Your task to perform on an android device: Go to location settings Image 0: 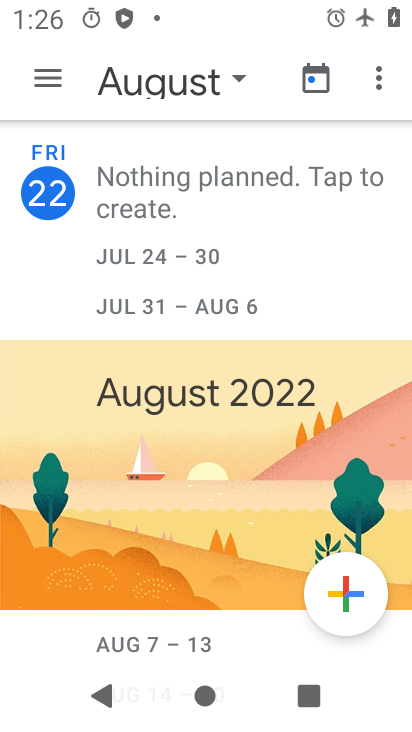
Step 0: press home button
Your task to perform on an android device: Go to location settings Image 1: 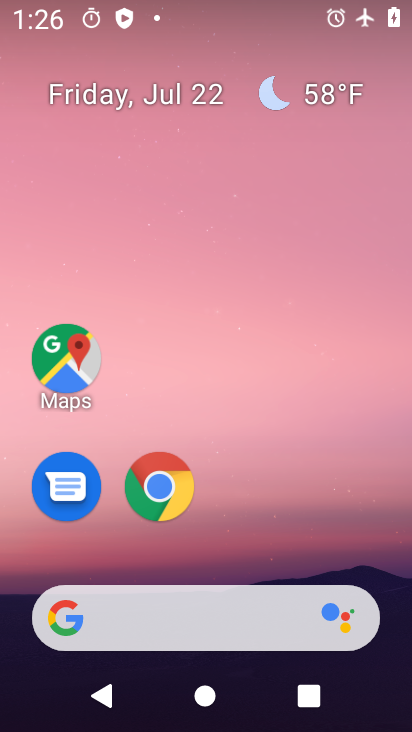
Step 1: drag from (367, 515) to (378, 49)
Your task to perform on an android device: Go to location settings Image 2: 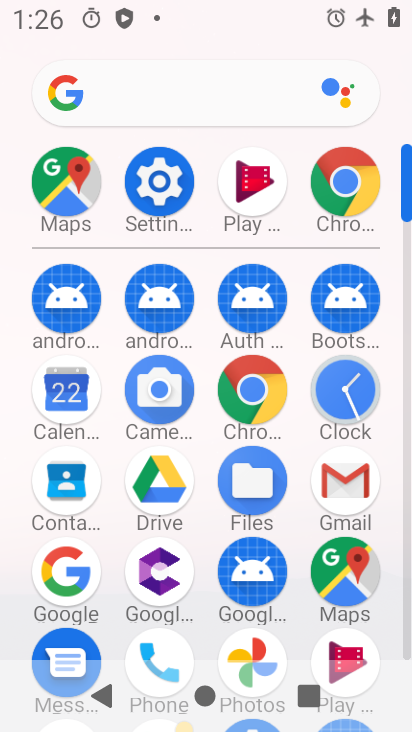
Step 2: click (145, 189)
Your task to perform on an android device: Go to location settings Image 3: 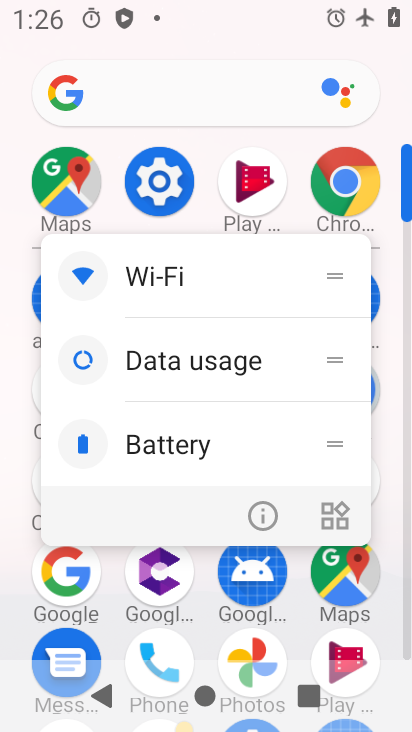
Step 3: click (145, 189)
Your task to perform on an android device: Go to location settings Image 4: 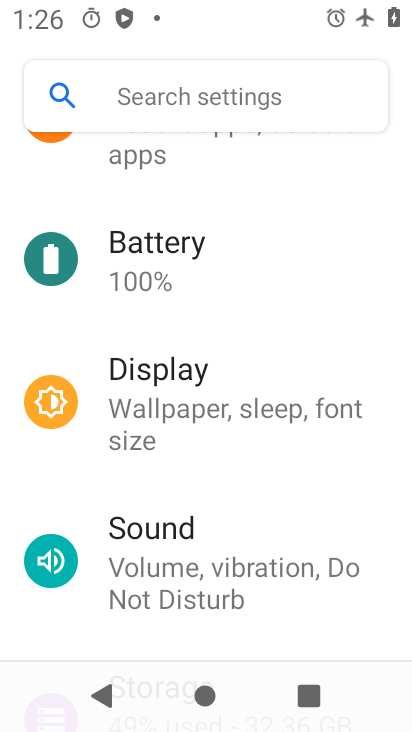
Step 4: drag from (332, 325) to (335, 238)
Your task to perform on an android device: Go to location settings Image 5: 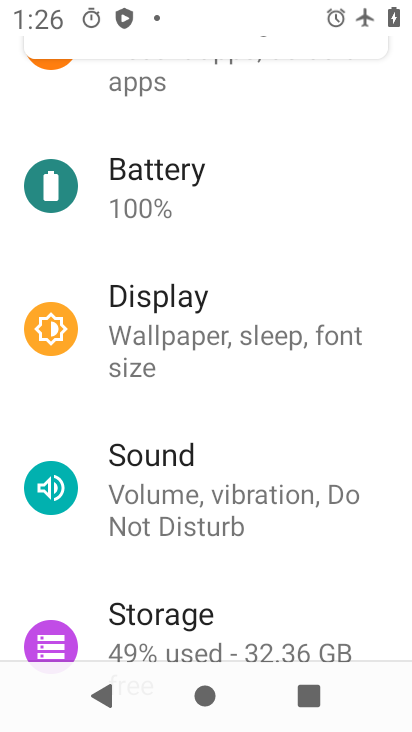
Step 5: drag from (349, 345) to (357, 273)
Your task to perform on an android device: Go to location settings Image 6: 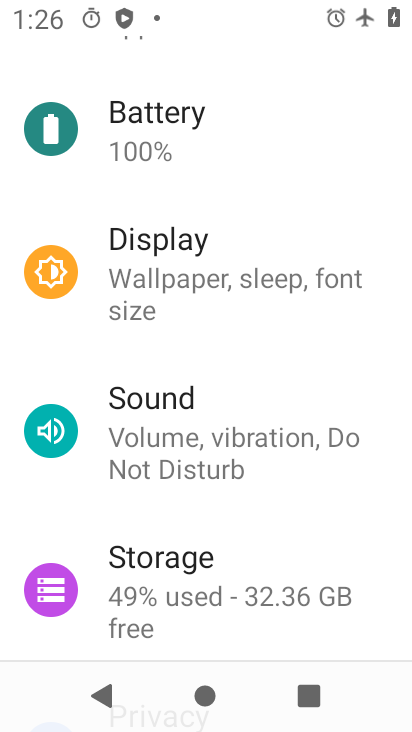
Step 6: drag from (363, 353) to (366, 283)
Your task to perform on an android device: Go to location settings Image 7: 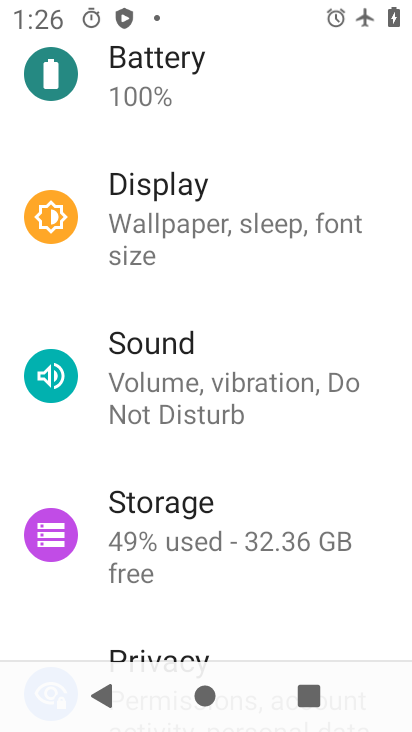
Step 7: drag from (372, 361) to (373, 275)
Your task to perform on an android device: Go to location settings Image 8: 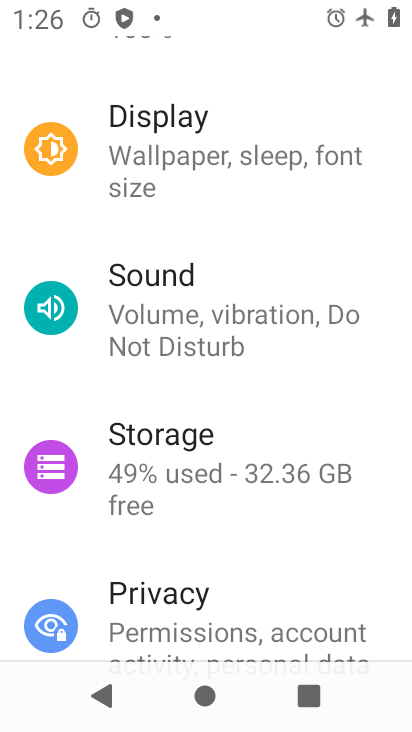
Step 8: drag from (380, 343) to (380, 259)
Your task to perform on an android device: Go to location settings Image 9: 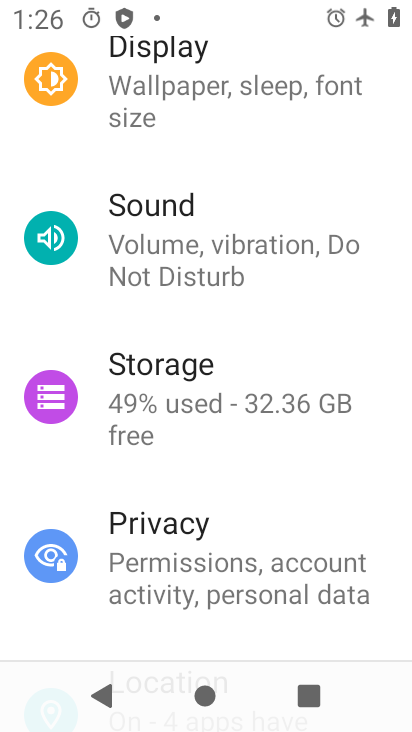
Step 9: drag from (370, 336) to (370, 271)
Your task to perform on an android device: Go to location settings Image 10: 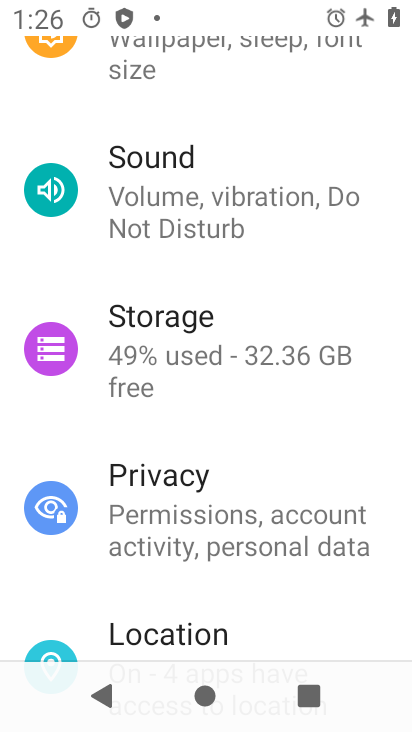
Step 10: drag from (362, 361) to (362, 287)
Your task to perform on an android device: Go to location settings Image 11: 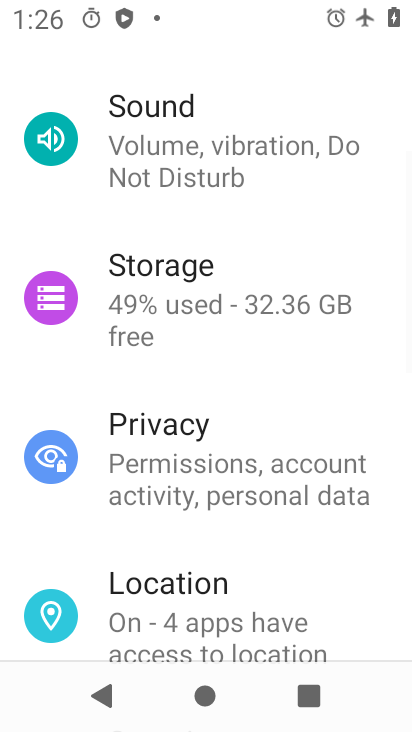
Step 11: drag from (363, 352) to (362, 287)
Your task to perform on an android device: Go to location settings Image 12: 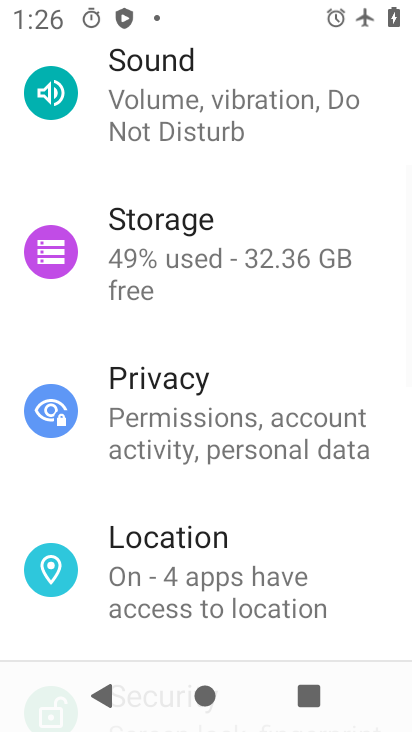
Step 12: drag from (360, 352) to (360, 271)
Your task to perform on an android device: Go to location settings Image 13: 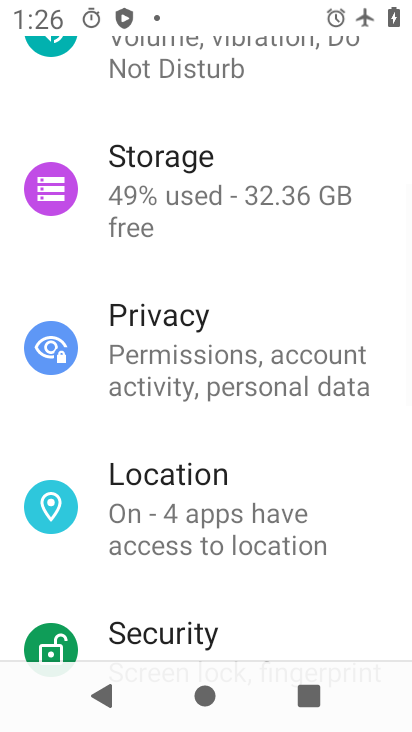
Step 13: drag from (366, 347) to (367, 264)
Your task to perform on an android device: Go to location settings Image 14: 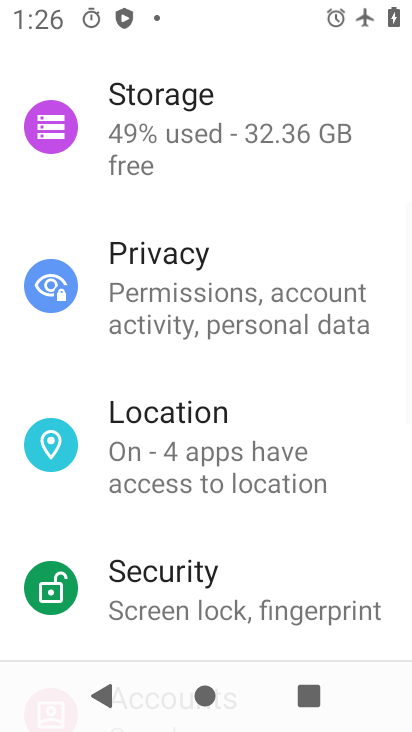
Step 14: drag from (371, 369) to (372, 291)
Your task to perform on an android device: Go to location settings Image 15: 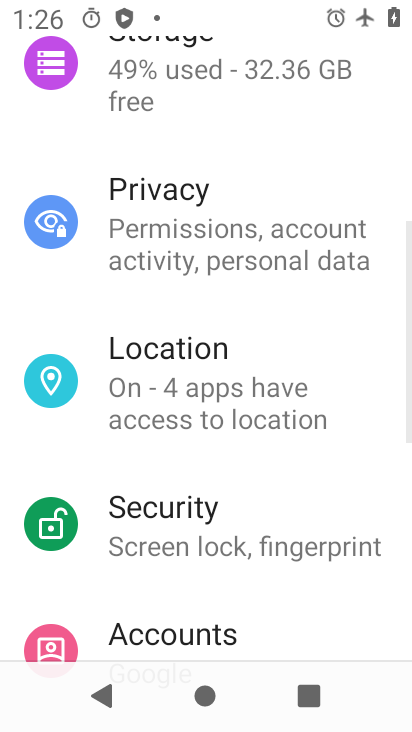
Step 15: drag from (372, 366) to (368, 275)
Your task to perform on an android device: Go to location settings Image 16: 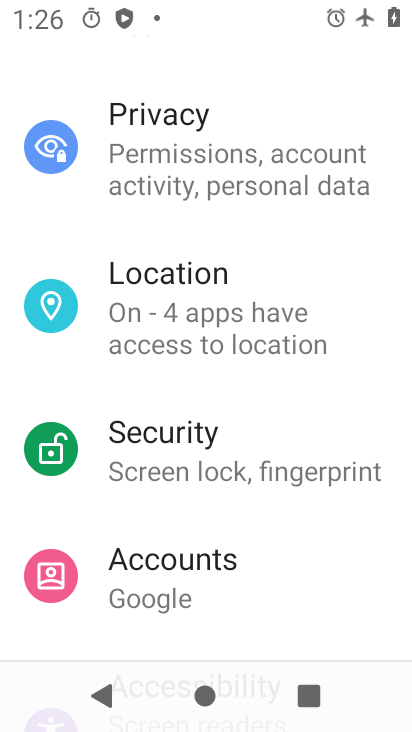
Step 16: click (343, 300)
Your task to perform on an android device: Go to location settings Image 17: 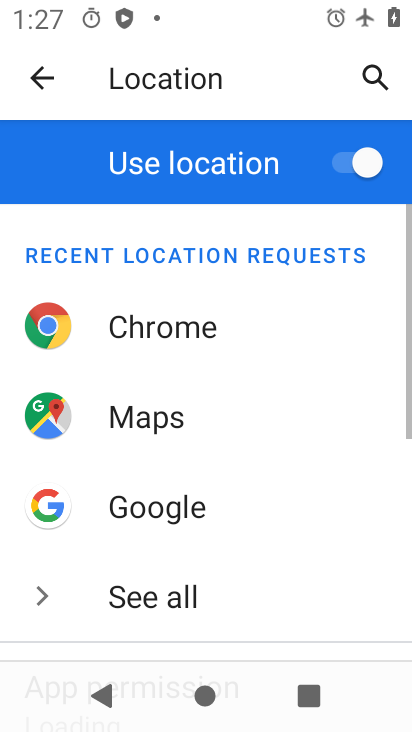
Step 17: task complete